Your task to perform on an android device: Open accessibility settings Image 0: 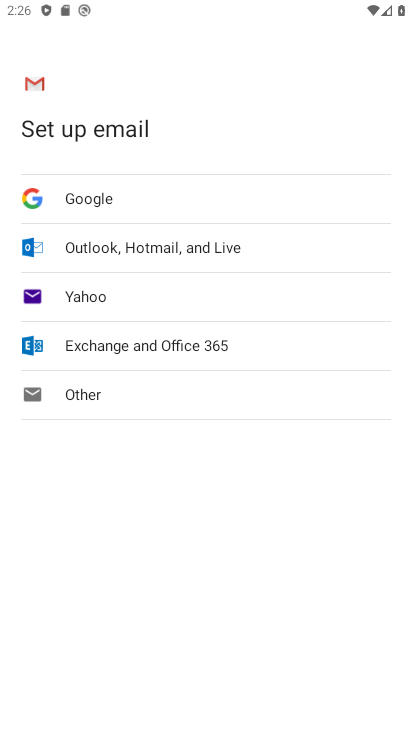
Step 0: press home button
Your task to perform on an android device: Open accessibility settings Image 1: 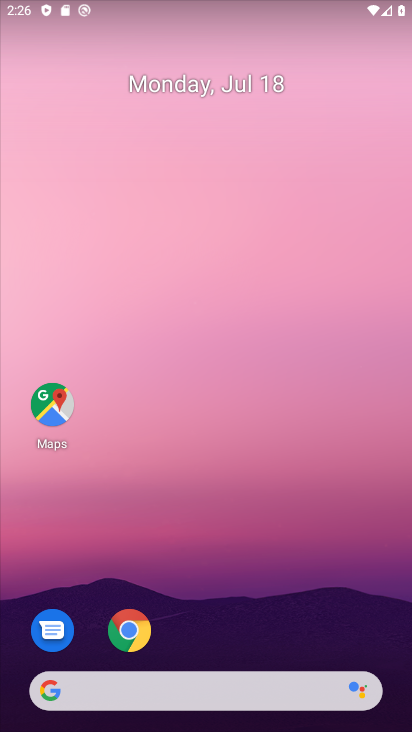
Step 1: drag from (282, 402) to (272, 16)
Your task to perform on an android device: Open accessibility settings Image 2: 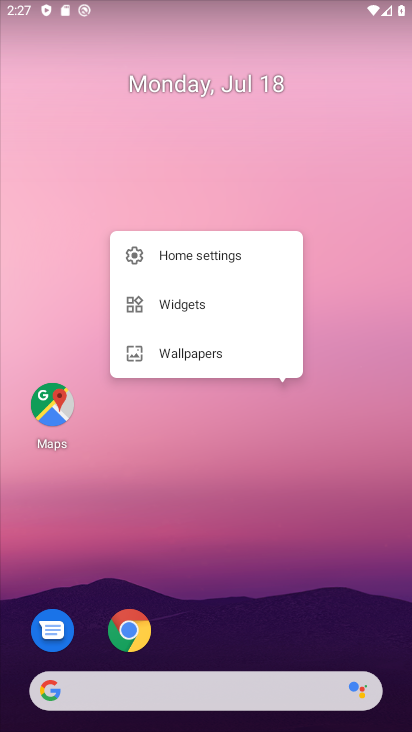
Step 2: click (347, 508)
Your task to perform on an android device: Open accessibility settings Image 3: 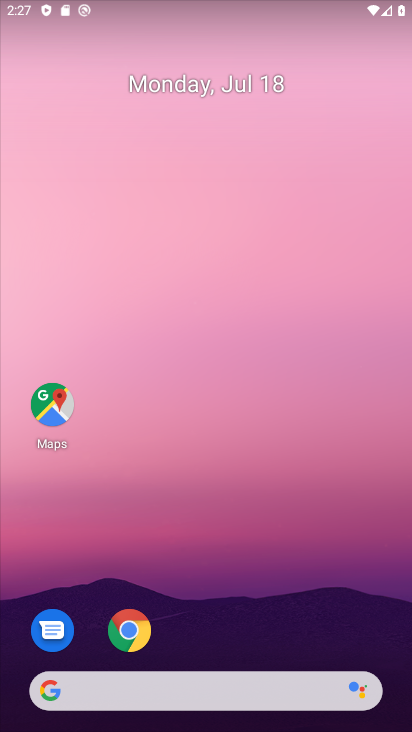
Step 3: drag from (332, 632) to (354, 104)
Your task to perform on an android device: Open accessibility settings Image 4: 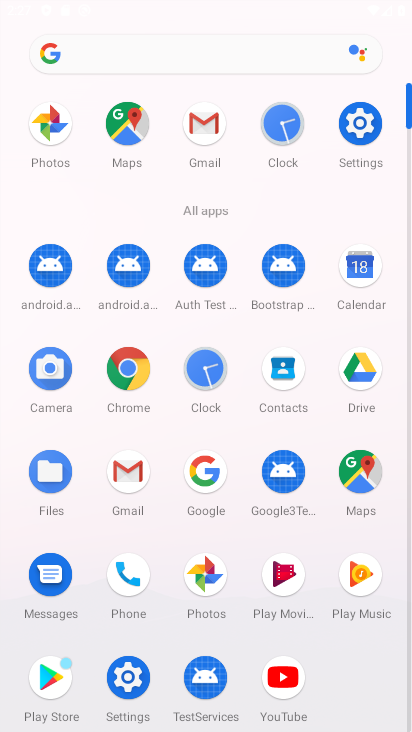
Step 4: click (356, 112)
Your task to perform on an android device: Open accessibility settings Image 5: 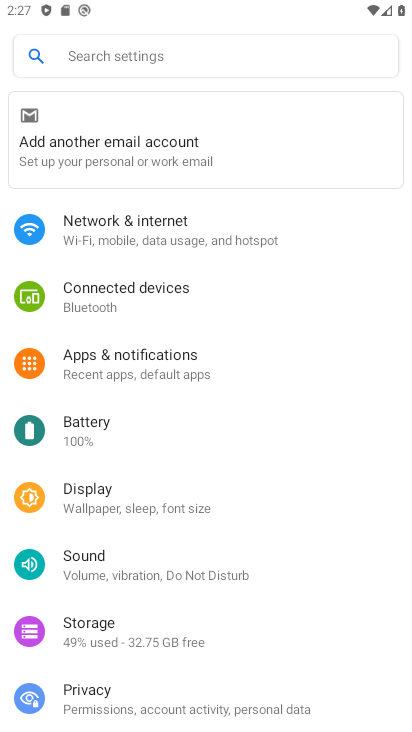
Step 5: click (359, 113)
Your task to perform on an android device: Open accessibility settings Image 6: 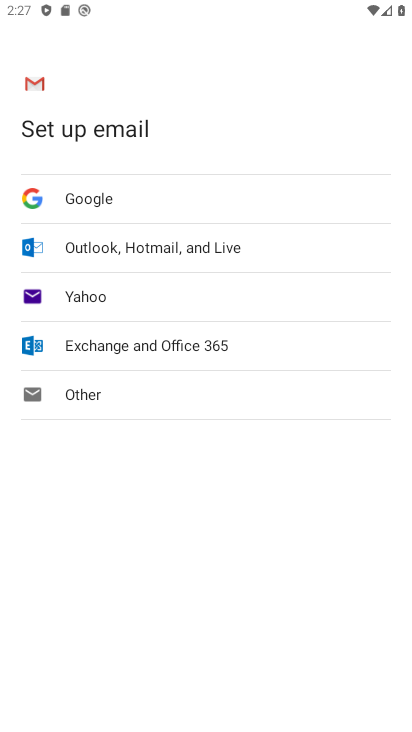
Step 6: press back button
Your task to perform on an android device: Open accessibility settings Image 7: 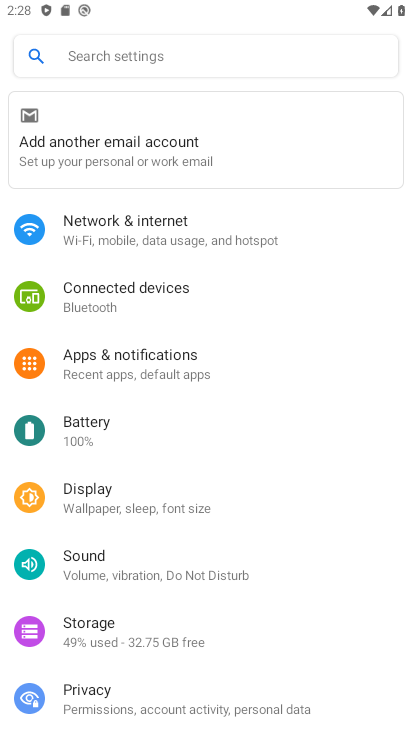
Step 7: drag from (217, 372) to (238, 205)
Your task to perform on an android device: Open accessibility settings Image 8: 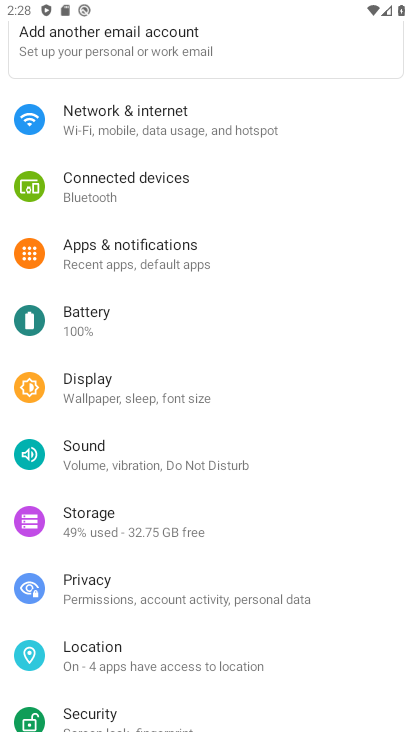
Step 8: drag from (305, 685) to (269, 172)
Your task to perform on an android device: Open accessibility settings Image 9: 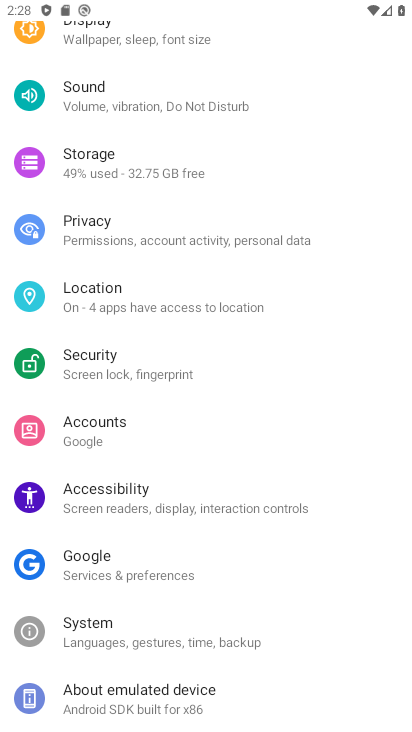
Step 9: drag from (349, 505) to (345, 190)
Your task to perform on an android device: Open accessibility settings Image 10: 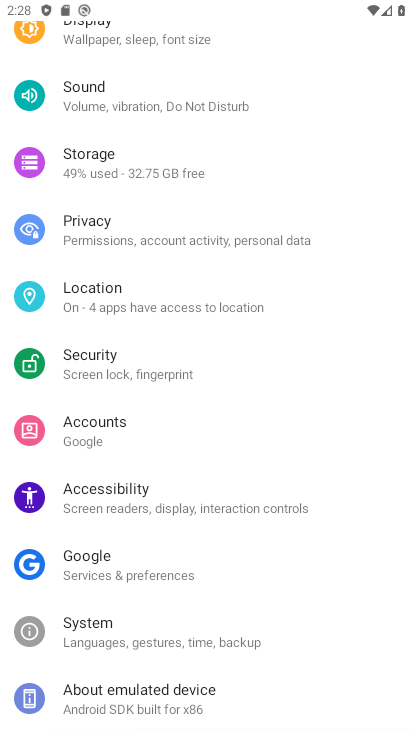
Step 10: drag from (341, 665) to (319, 131)
Your task to perform on an android device: Open accessibility settings Image 11: 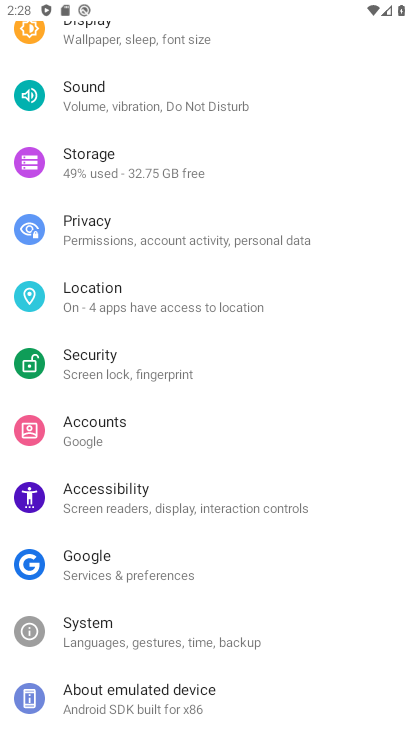
Step 11: click (114, 493)
Your task to perform on an android device: Open accessibility settings Image 12: 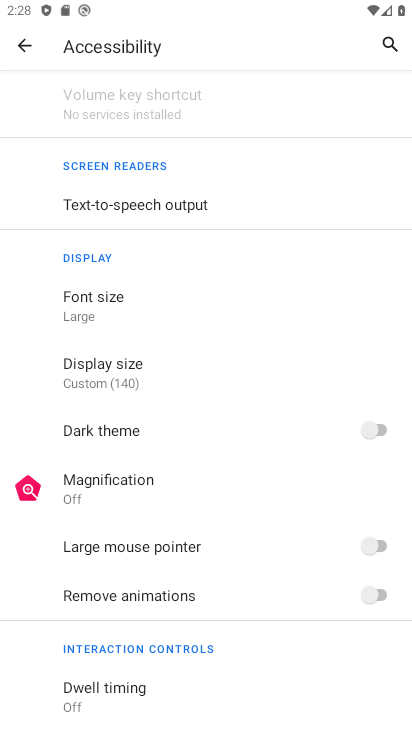
Step 12: task complete